Your task to perform on an android device: Open calendar and show me the third week of next month Image 0: 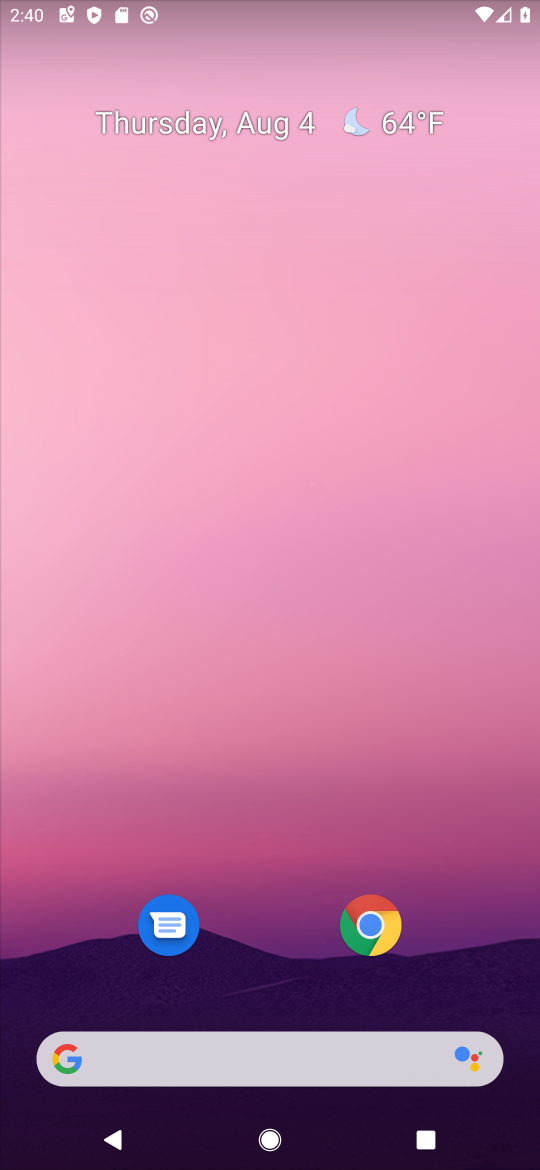
Step 0: drag from (287, 971) to (229, 59)
Your task to perform on an android device: Open calendar and show me the third week of next month Image 1: 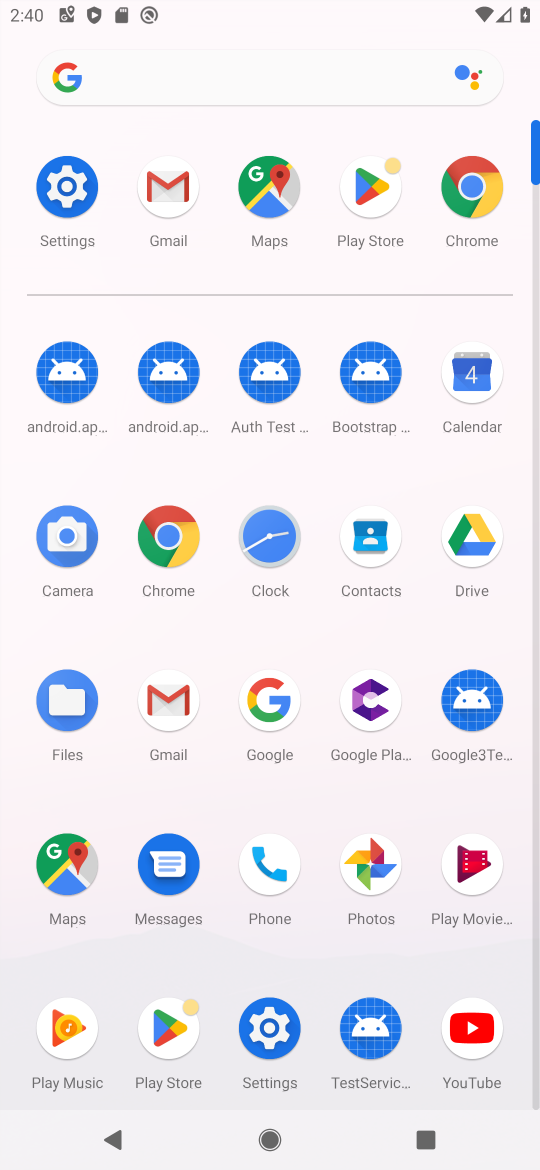
Step 1: click (461, 383)
Your task to perform on an android device: Open calendar and show me the third week of next month Image 2: 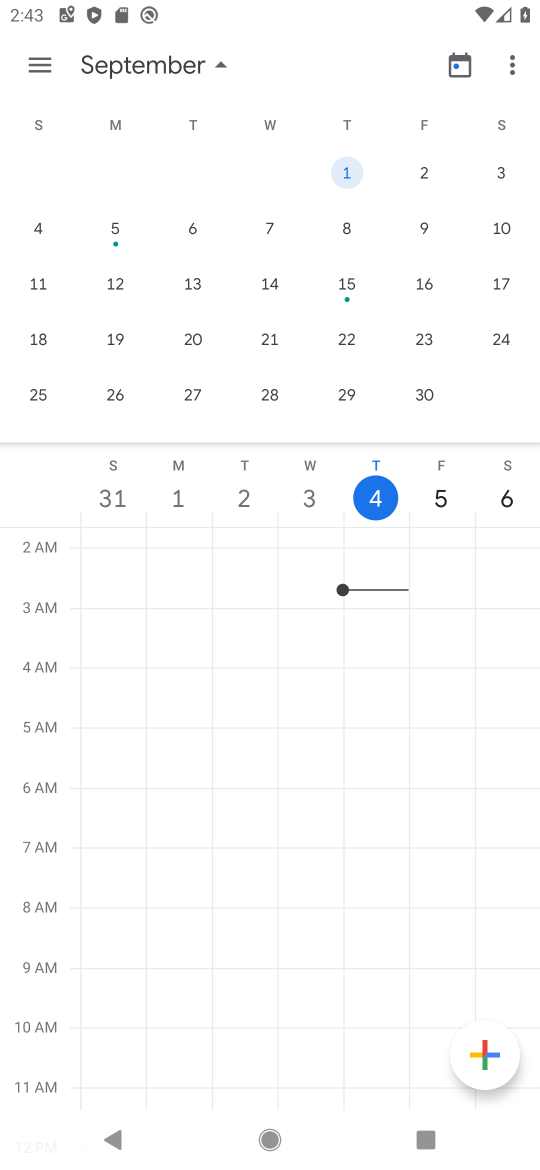
Step 2: task complete